Your task to perform on an android device: toggle wifi Image 0: 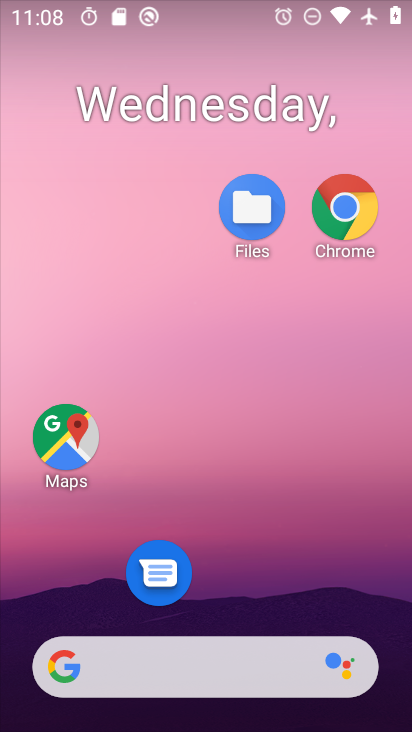
Step 0: drag from (236, 669) to (292, 210)
Your task to perform on an android device: toggle wifi Image 1: 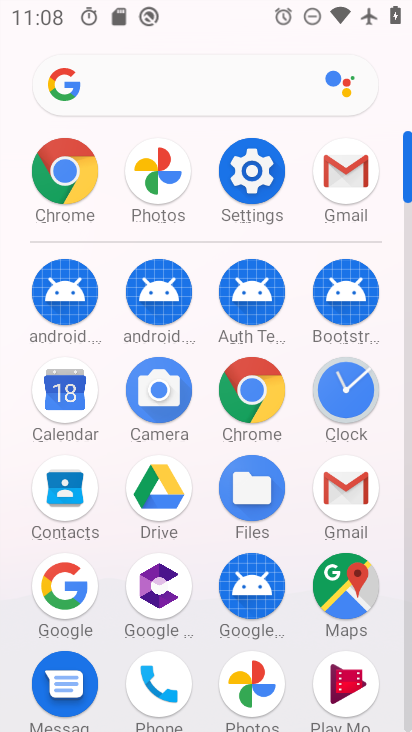
Step 1: click (240, 192)
Your task to perform on an android device: toggle wifi Image 2: 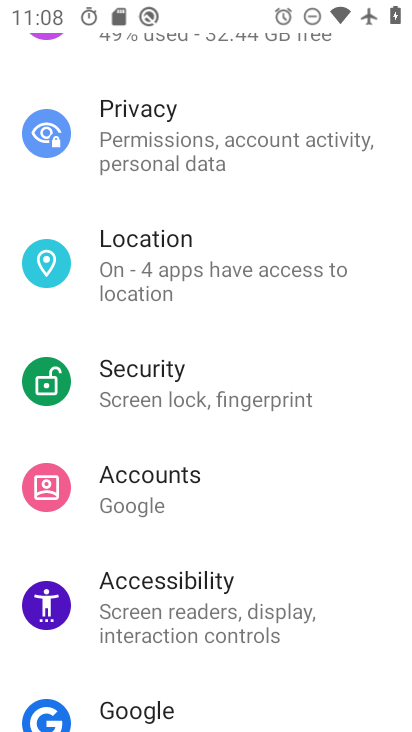
Step 2: drag from (240, 200) to (165, 549)
Your task to perform on an android device: toggle wifi Image 3: 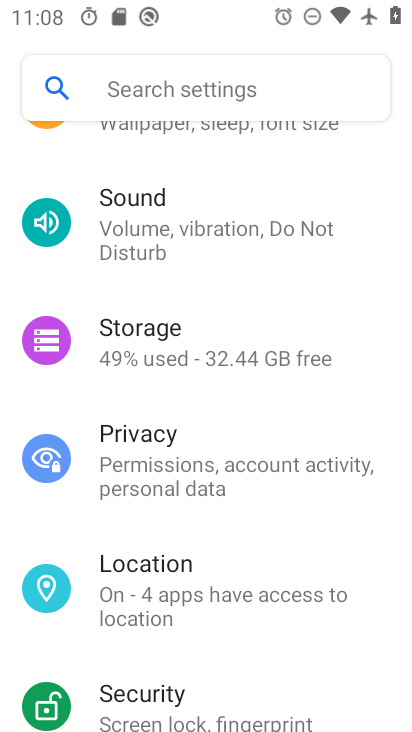
Step 3: drag from (212, 267) to (194, 523)
Your task to perform on an android device: toggle wifi Image 4: 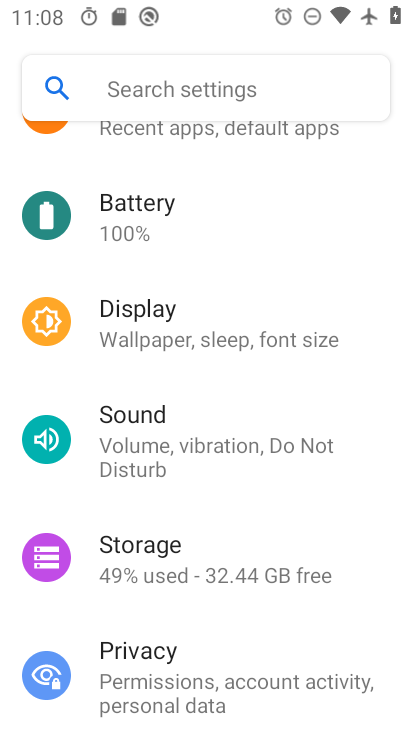
Step 4: drag from (222, 307) to (192, 578)
Your task to perform on an android device: toggle wifi Image 5: 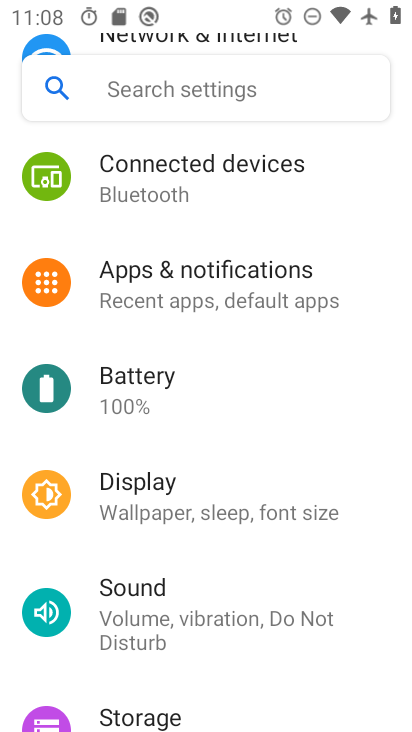
Step 5: drag from (229, 279) to (218, 493)
Your task to perform on an android device: toggle wifi Image 6: 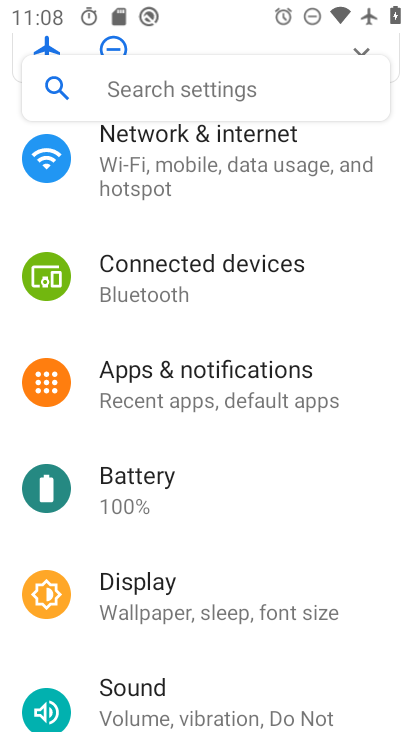
Step 6: drag from (236, 241) to (213, 441)
Your task to perform on an android device: toggle wifi Image 7: 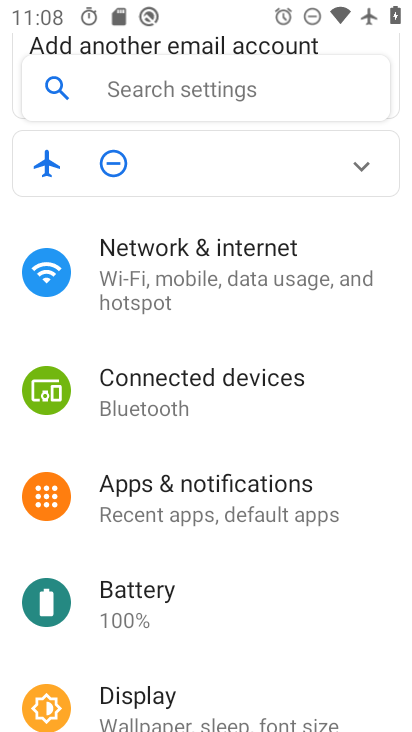
Step 7: click (216, 273)
Your task to perform on an android device: toggle wifi Image 8: 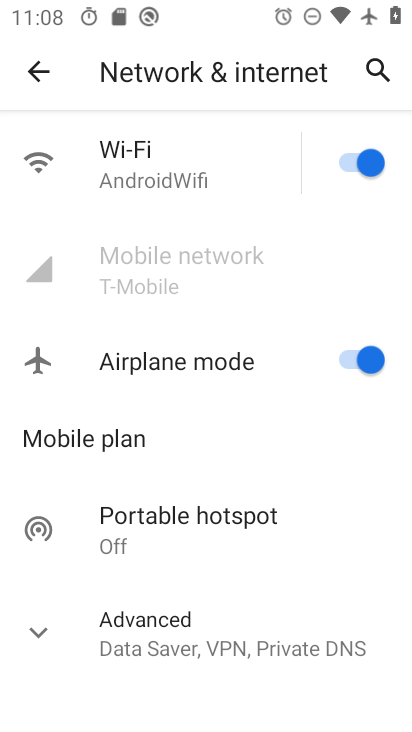
Step 8: click (342, 160)
Your task to perform on an android device: toggle wifi Image 9: 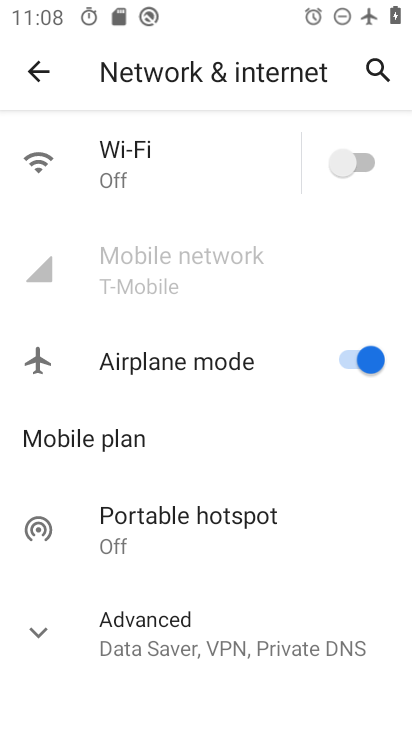
Step 9: task complete